Your task to perform on an android device: open app "The Home Depot" (install if not already installed) and go to login screen Image 0: 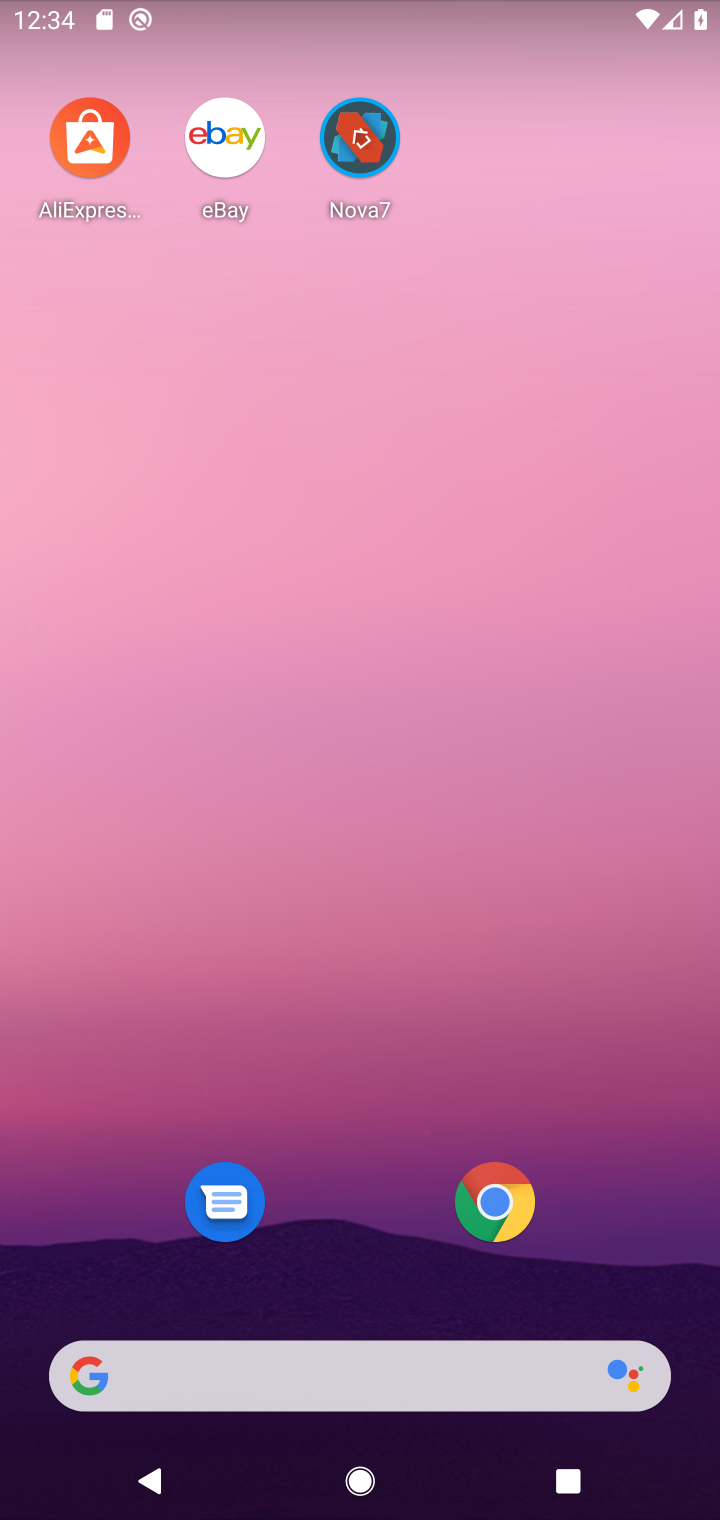
Step 0: drag from (227, 1268) to (289, 334)
Your task to perform on an android device: open app "The Home Depot" (install if not already installed) and go to login screen Image 1: 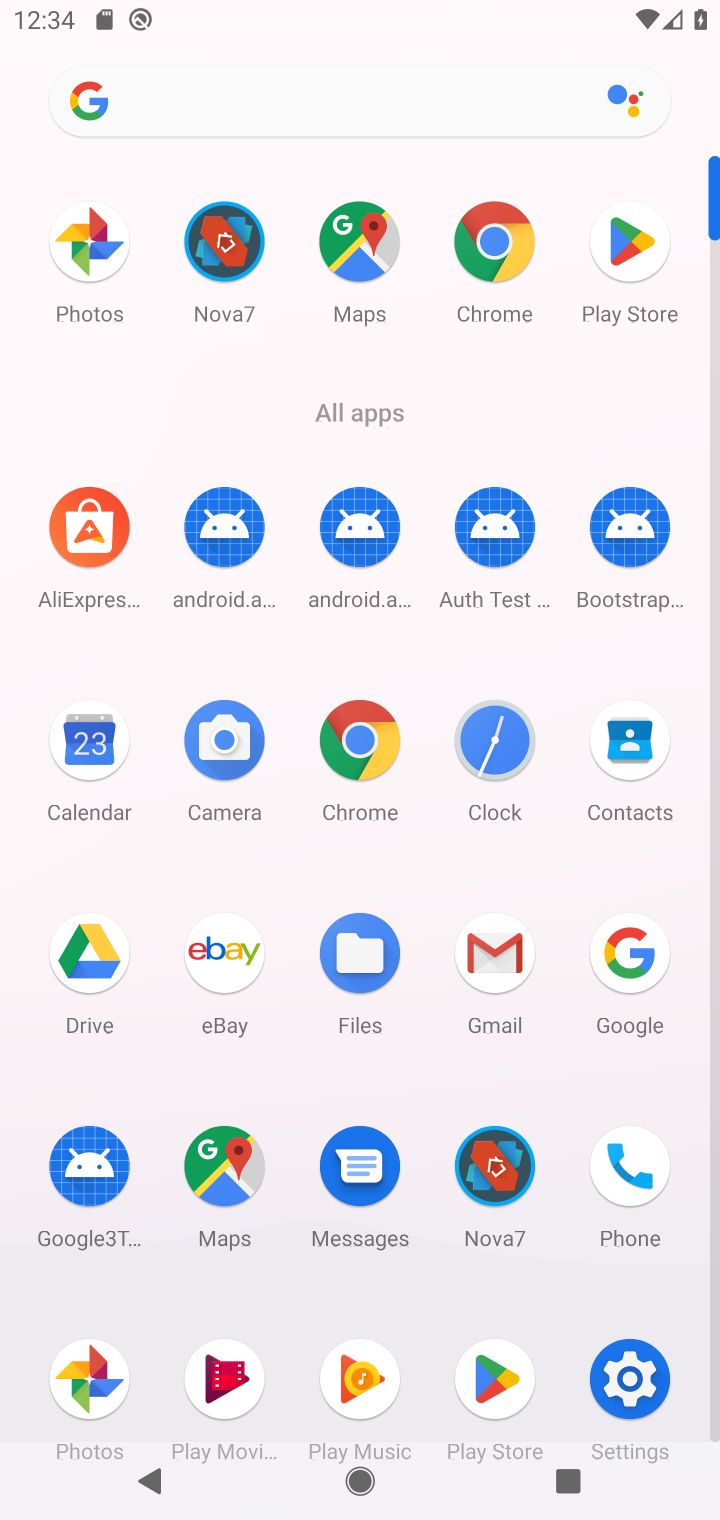
Step 1: click (634, 256)
Your task to perform on an android device: open app "The Home Depot" (install if not already installed) and go to login screen Image 2: 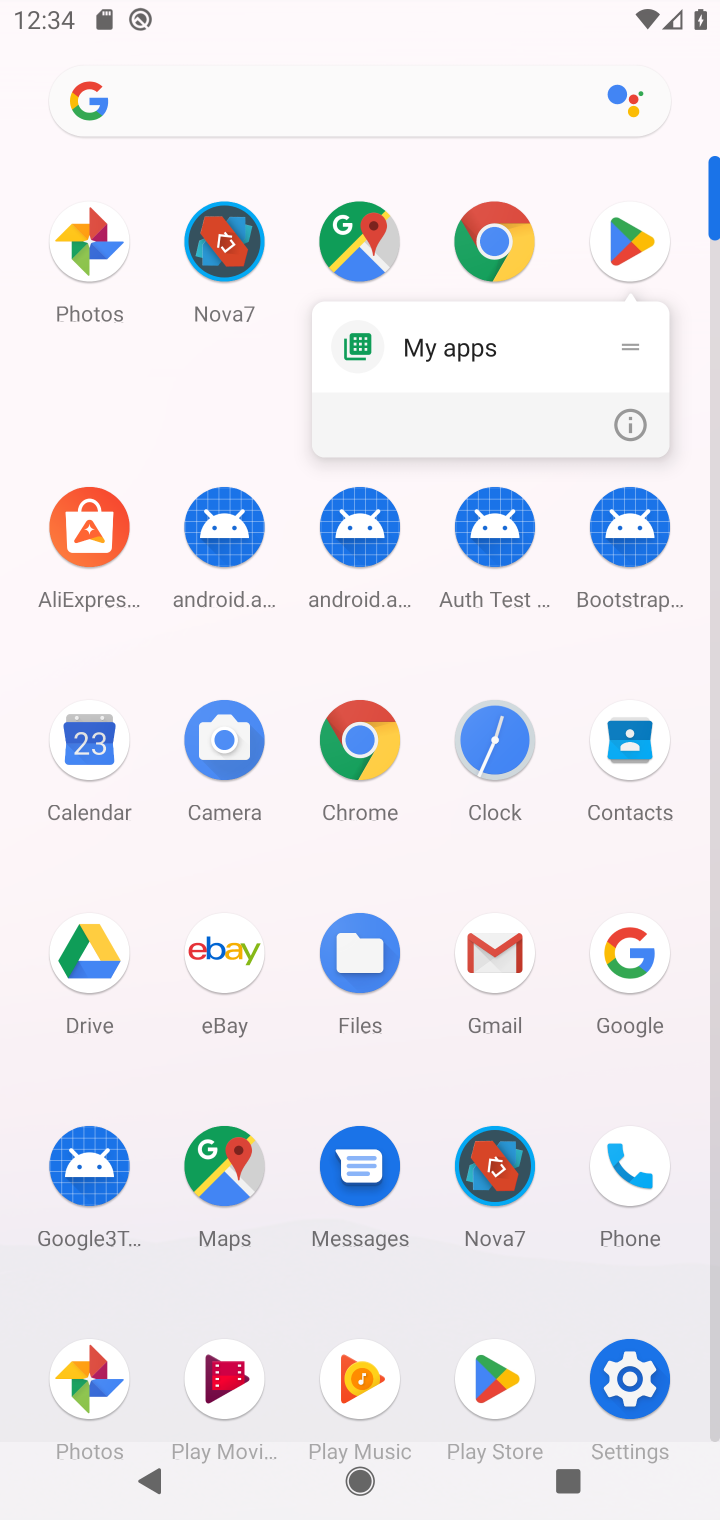
Step 2: click (616, 222)
Your task to perform on an android device: open app "The Home Depot" (install if not already installed) and go to login screen Image 3: 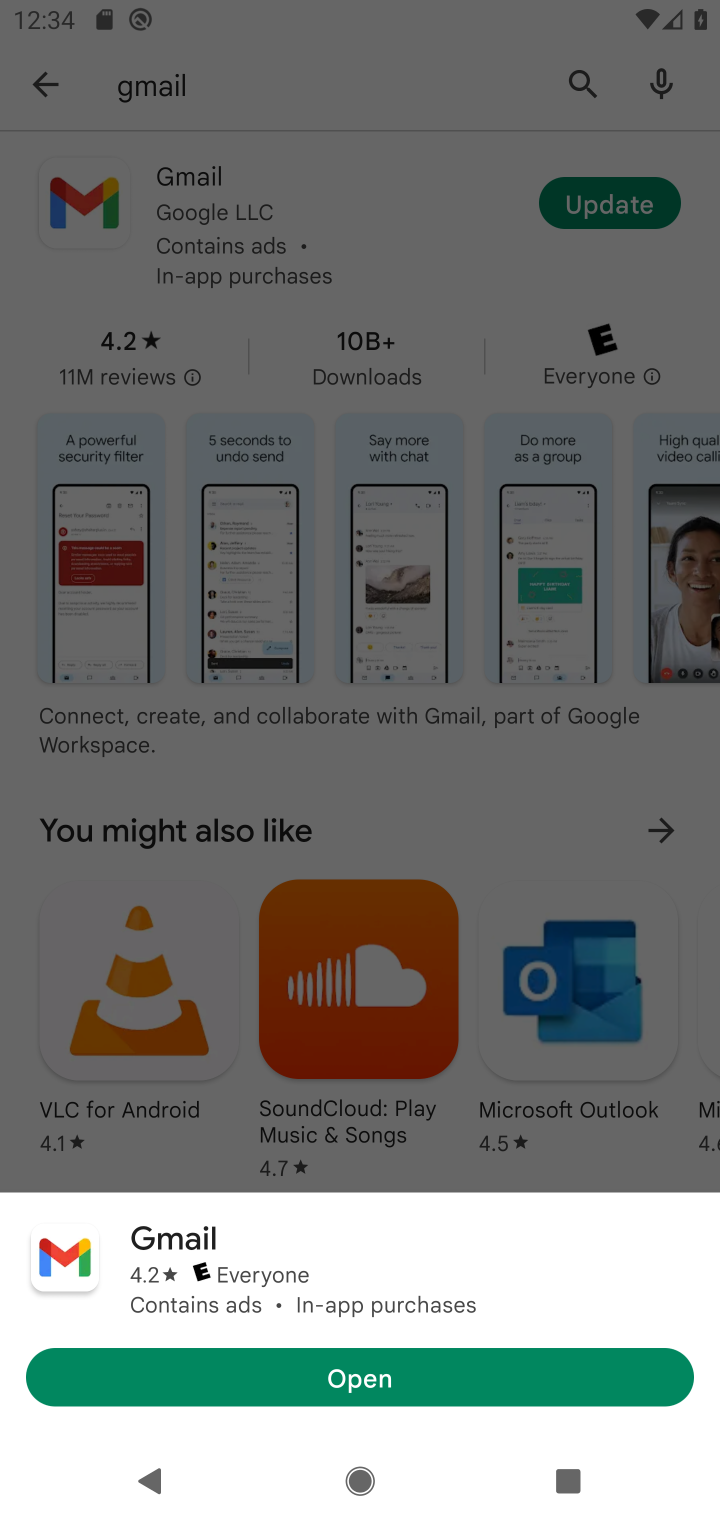
Step 3: click (388, 257)
Your task to perform on an android device: open app "The Home Depot" (install if not already installed) and go to login screen Image 4: 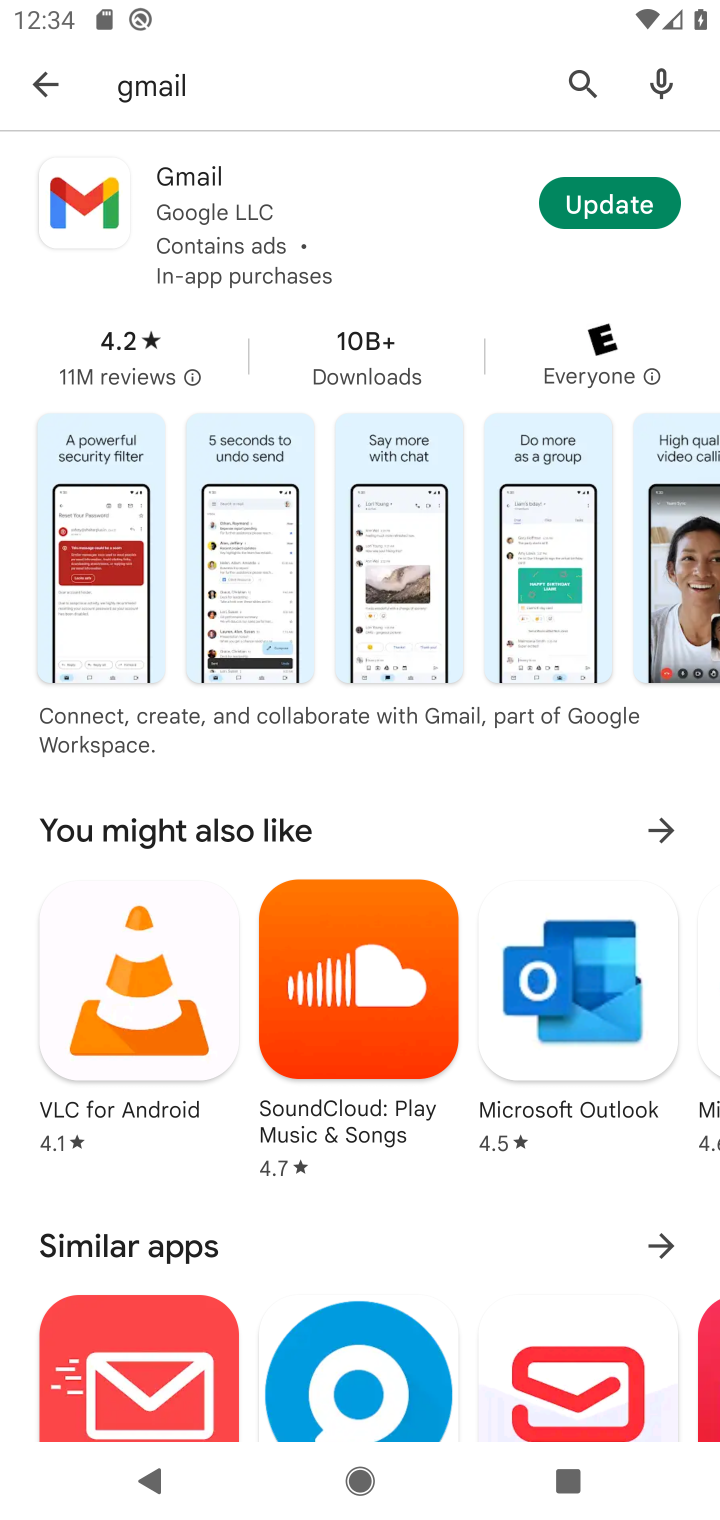
Step 4: click (579, 83)
Your task to perform on an android device: open app "The Home Depot" (install if not already installed) and go to login screen Image 5: 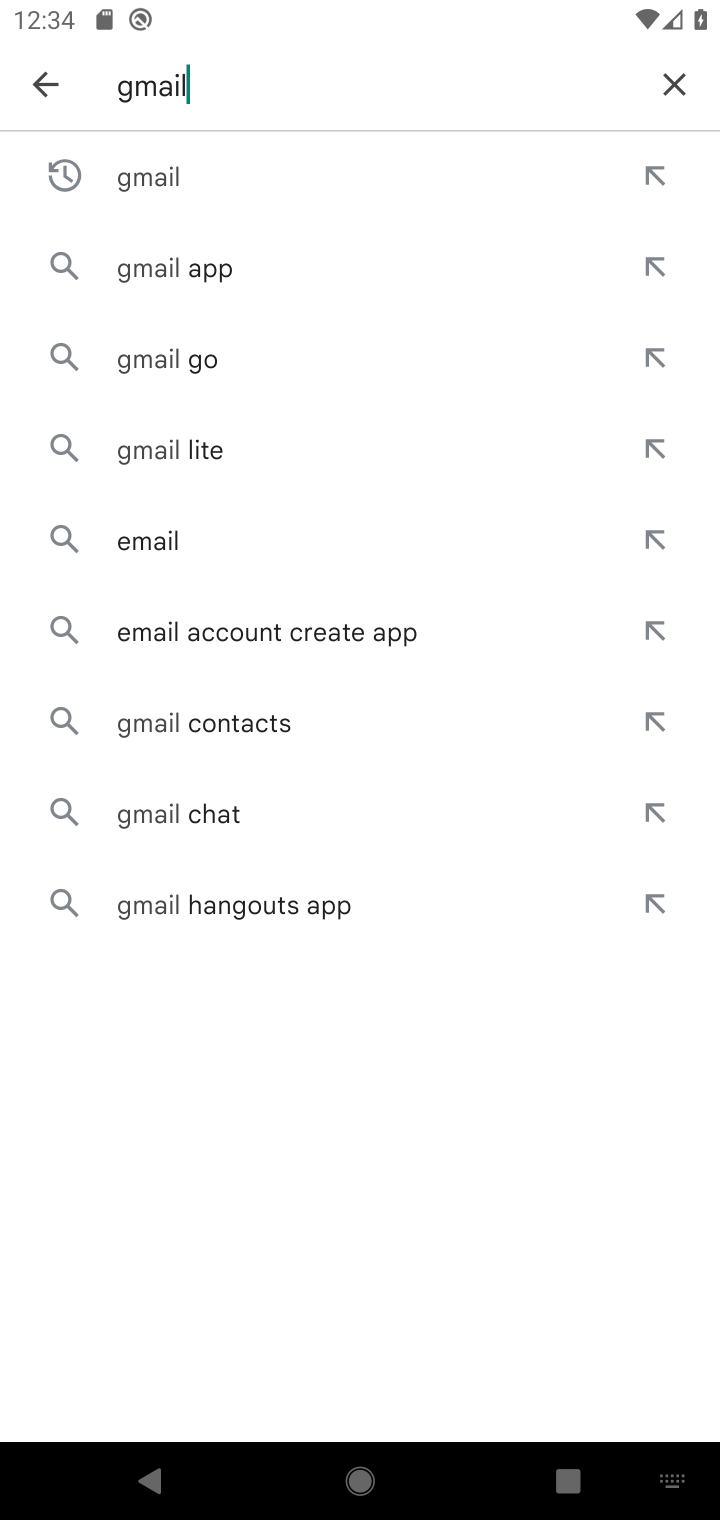
Step 5: click (673, 61)
Your task to perform on an android device: open app "The Home Depot" (install if not already installed) and go to login screen Image 6: 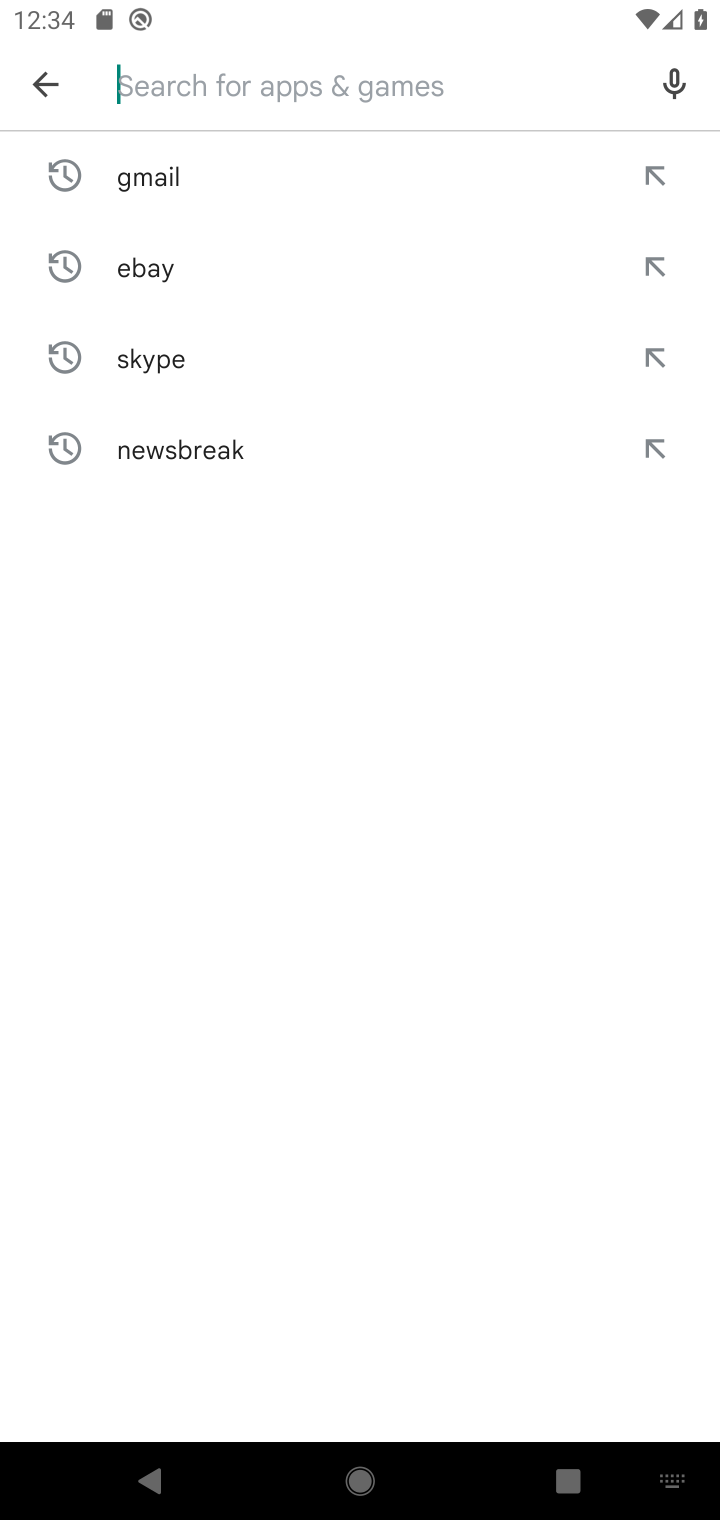
Step 6: type "the home depot"
Your task to perform on an android device: open app "The Home Depot" (install if not already installed) and go to login screen Image 7: 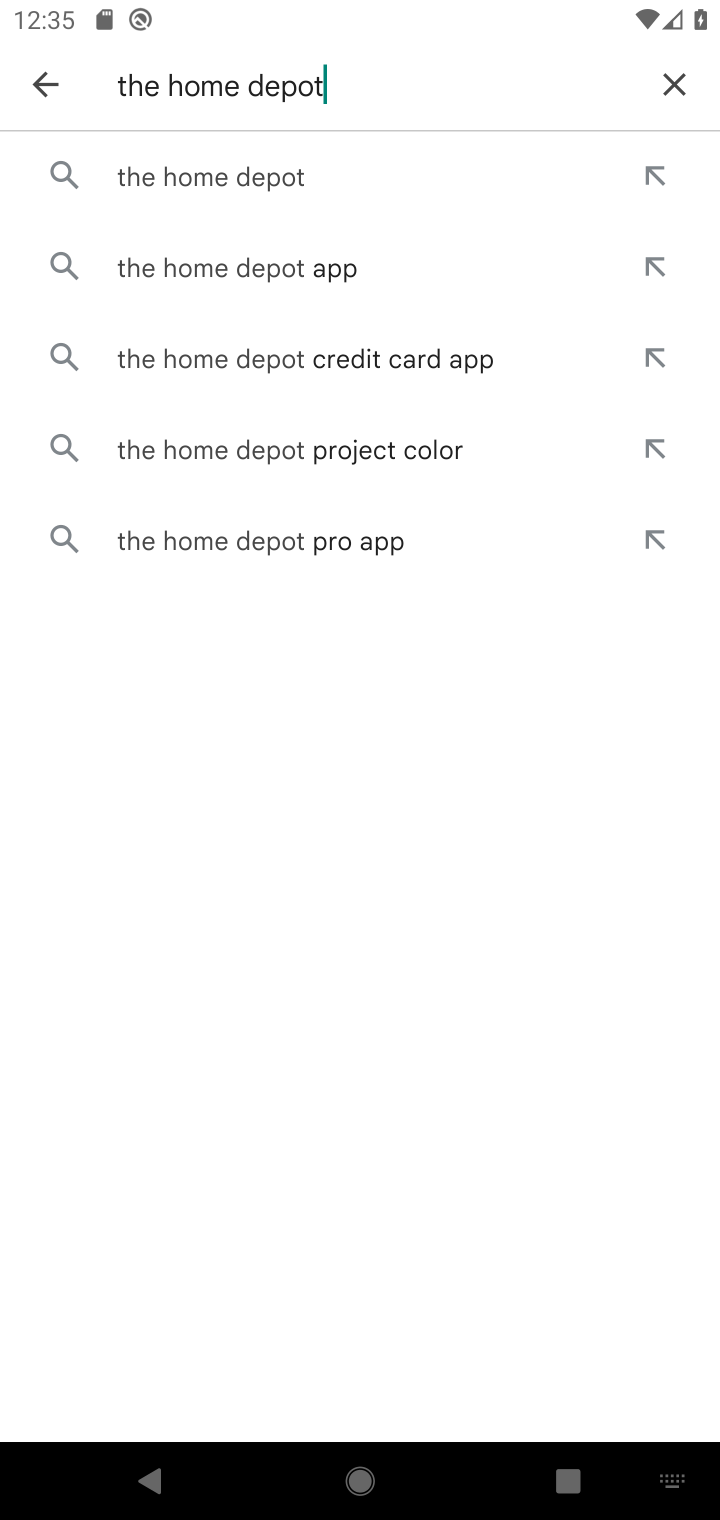
Step 7: click (290, 168)
Your task to perform on an android device: open app "The Home Depot" (install if not already installed) and go to login screen Image 8: 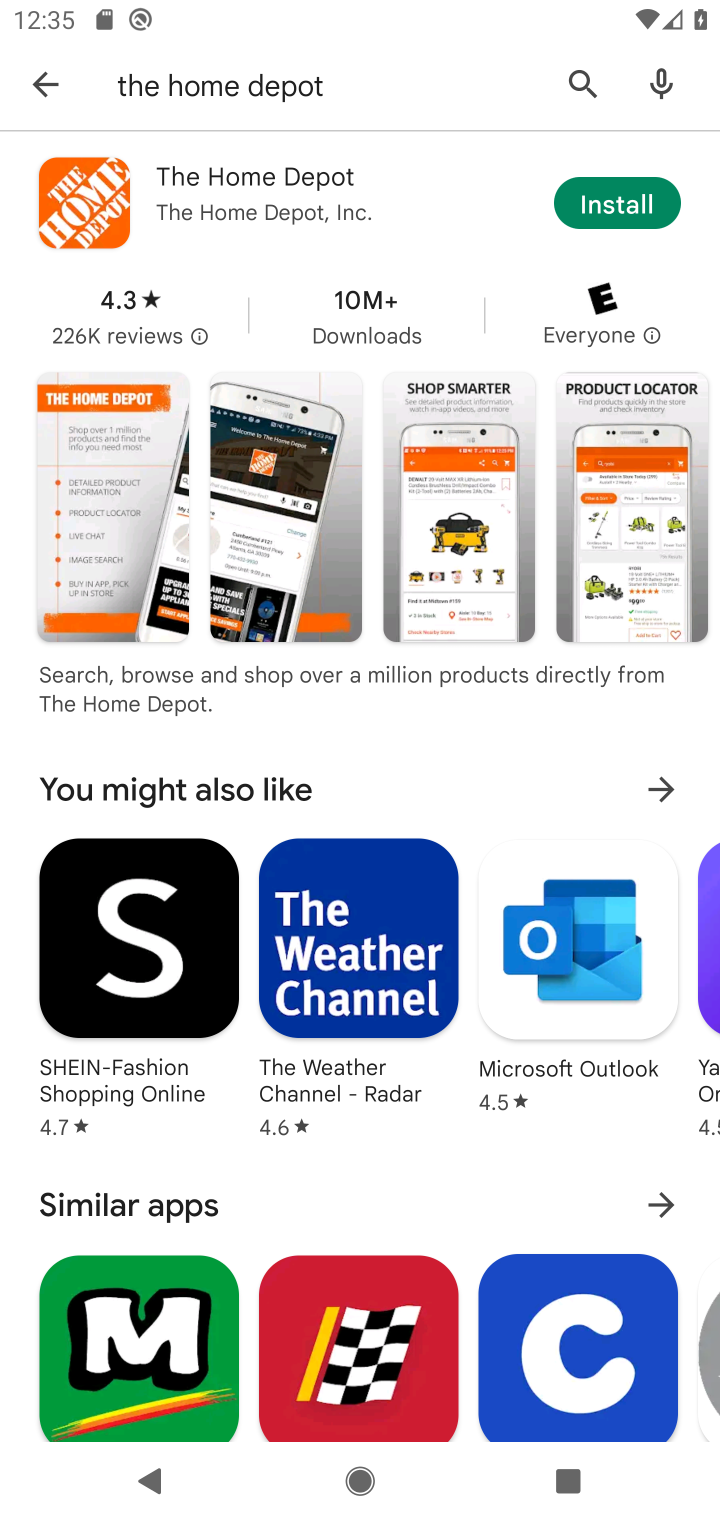
Step 8: click (626, 209)
Your task to perform on an android device: open app "The Home Depot" (install if not already installed) and go to login screen Image 9: 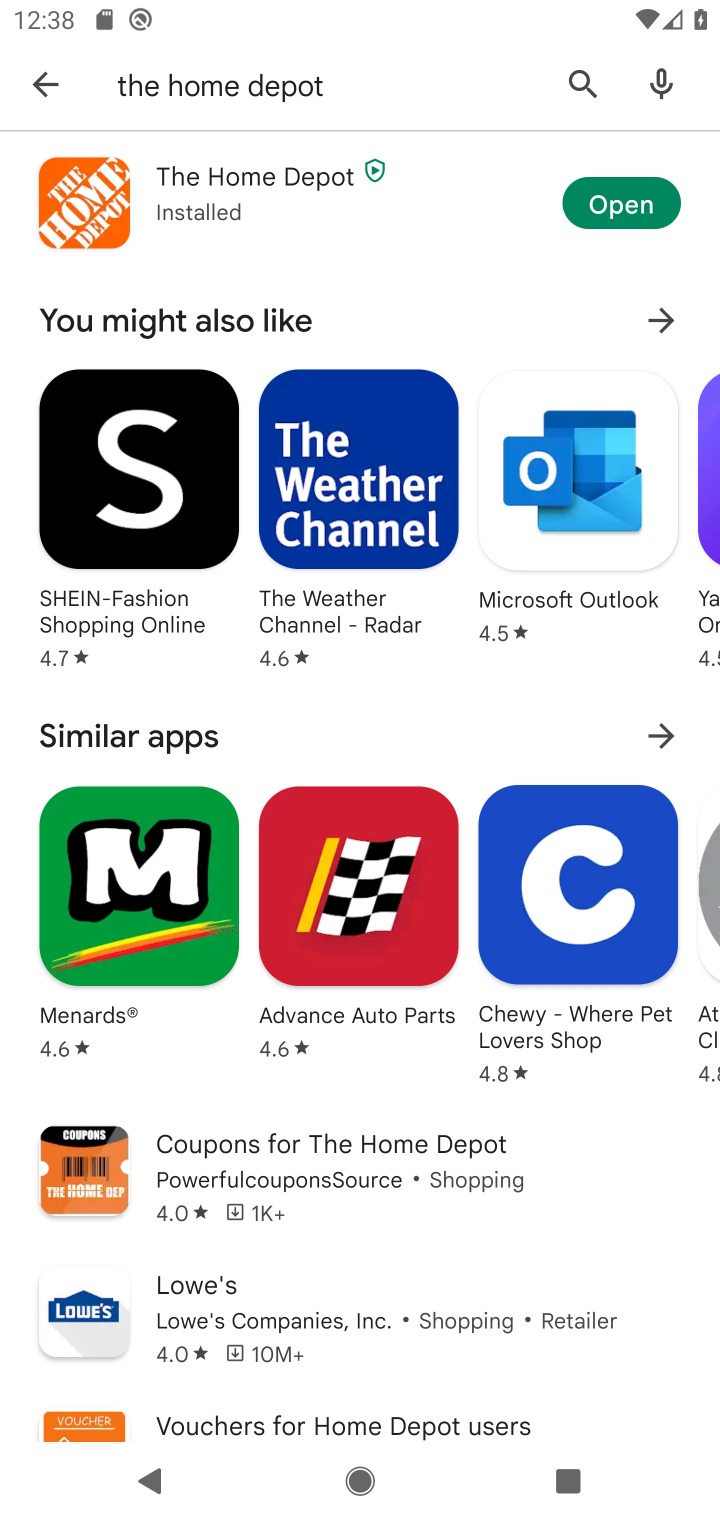
Step 9: click (621, 193)
Your task to perform on an android device: open app "The Home Depot" (install if not already installed) and go to login screen Image 10: 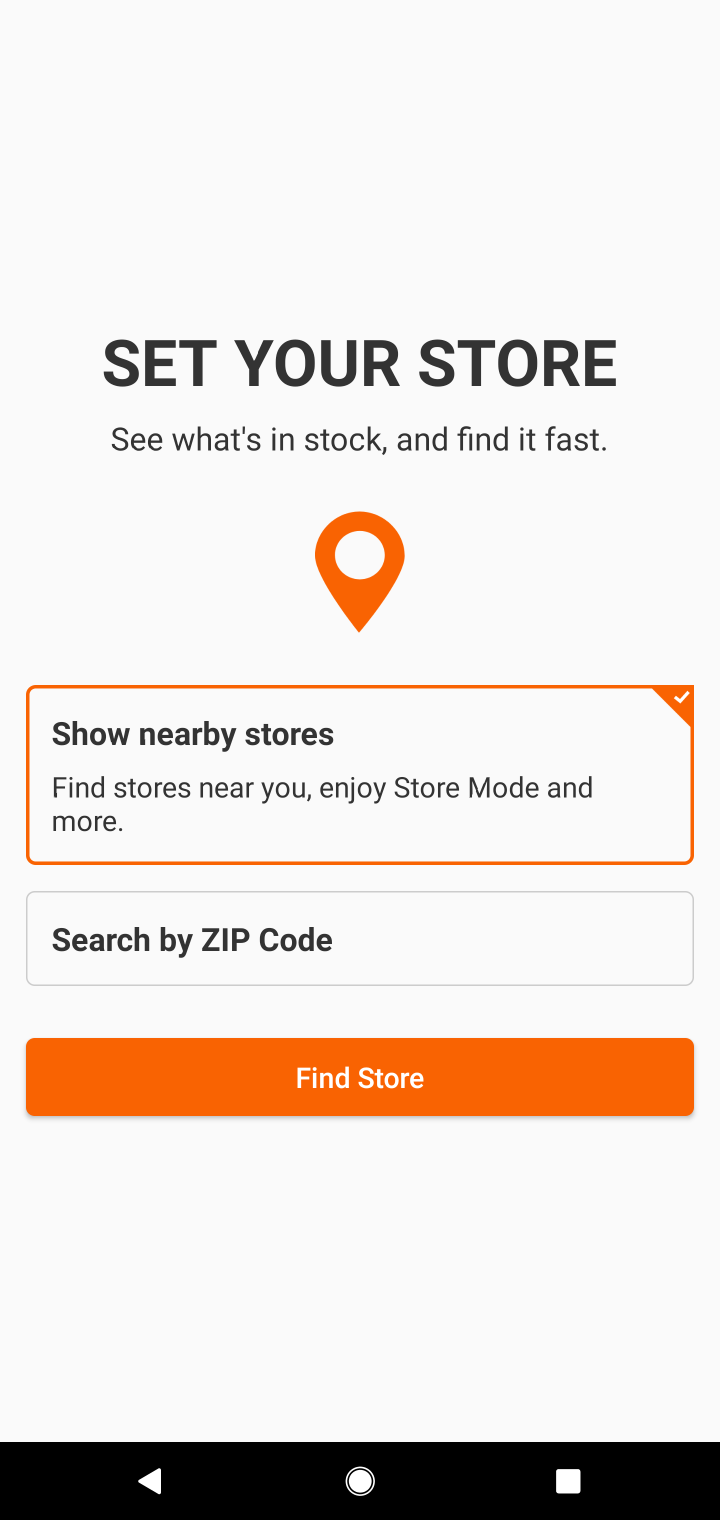
Step 10: task complete